Your task to perform on an android device: turn off smart reply in the gmail app Image 0: 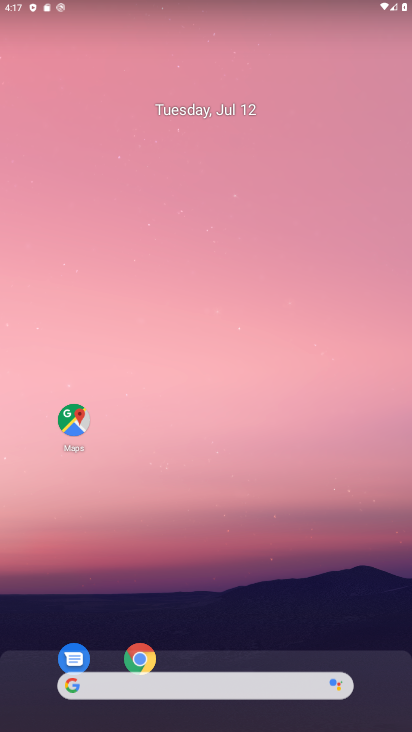
Step 0: drag from (260, 590) to (301, 204)
Your task to perform on an android device: turn off smart reply in the gmail app Image 1: 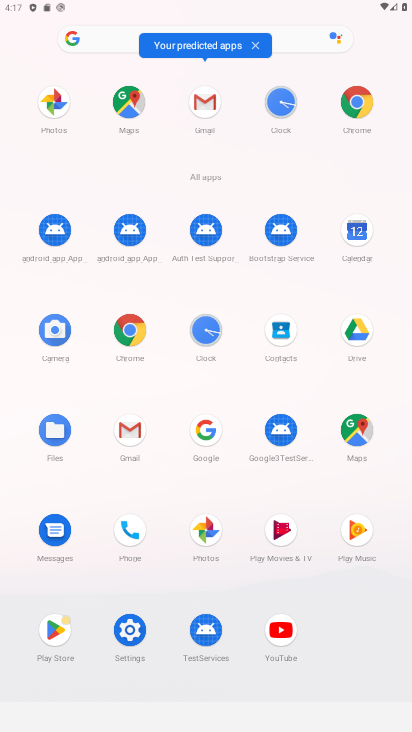
Step 1: click (212, 101)
Your task to perform on an android device: turn off smart reply in the gmail app Image 2: 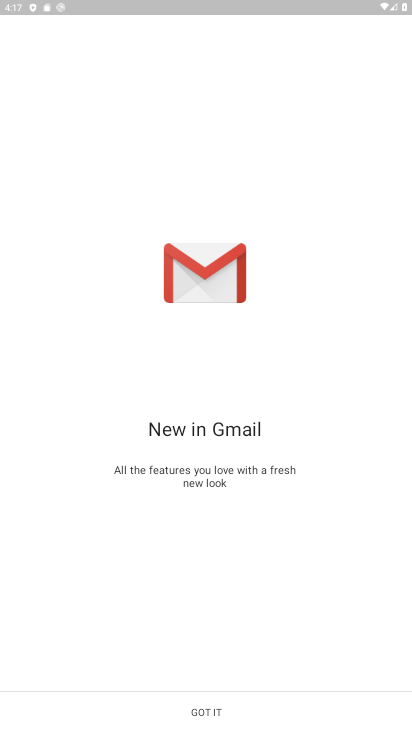
Step 2: click (189, 720)
Your task to perform on an android device: turn off smart reply in the gmail app Image 3: 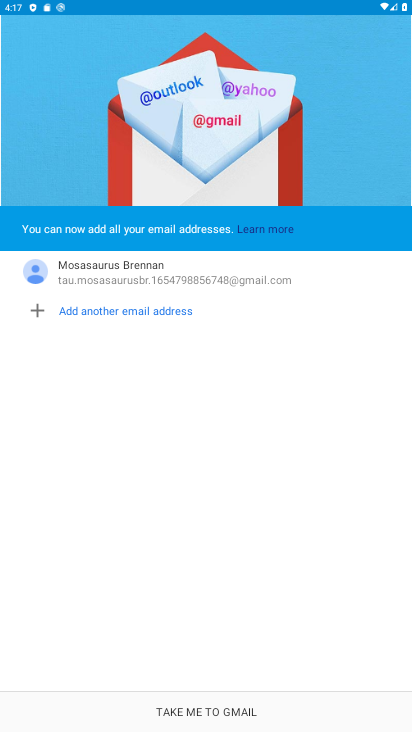
Step 3: click (191, 701)
Your task to perform on an android device: turn off smart reply in the gmail app Image 4: 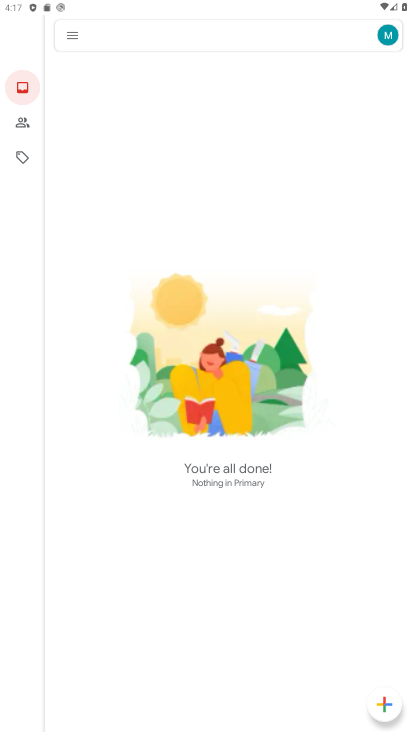
Step 4: click (73, 39)
Your task to perform on an android device: turn off smart reply in the gmail app Image 5: 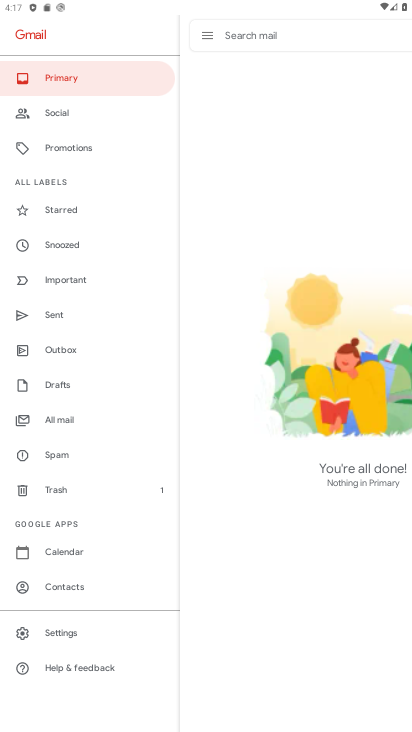
Step 5: click (90, 624)
Your task to perform on an android device: turn off smart reply in the gmail app Image 6: 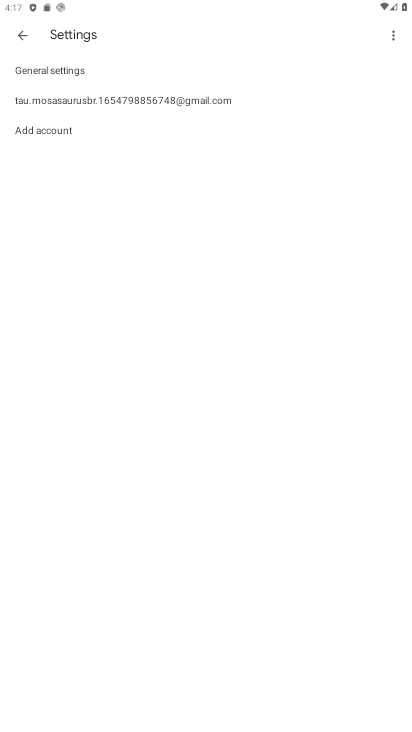
Step 6: click (241, 102)
Your task to perform on an android device: turn off smart reply in the gmail app Image 7: 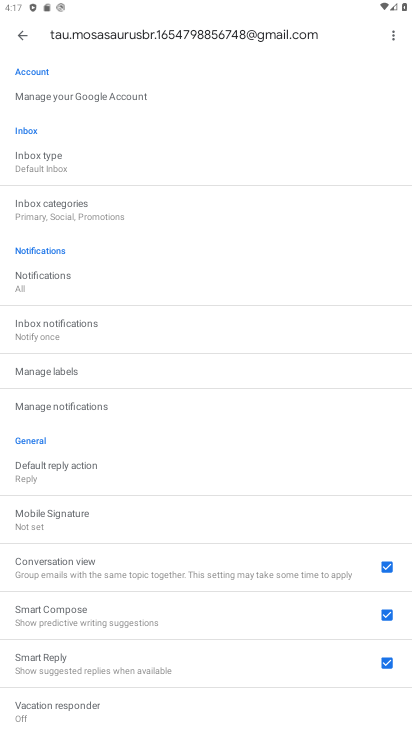
Step 7: click (394, 655)
Your task to perform on an android device: turn off smart reply in the gmail app Image 8: 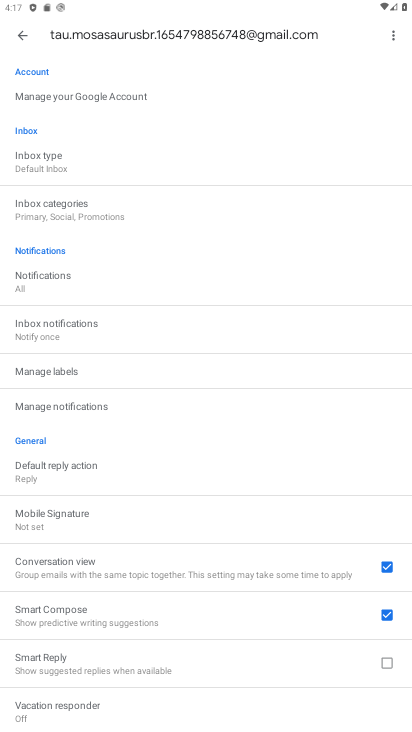
Step 8: task complete